Your task to perform on an android device: Open settings on Google Maps Image 0: 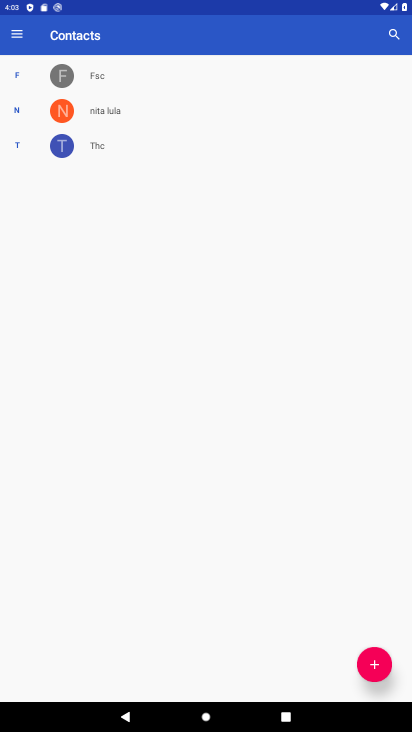
Step 0: press home button
Your task to perform on an android device: Open settings on Google Maps Image 1: 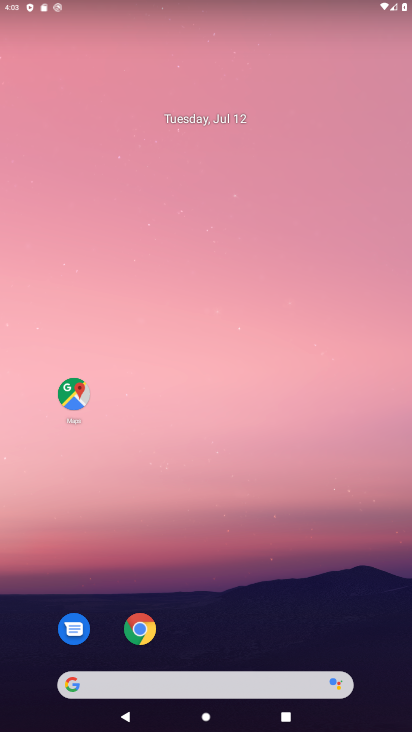
Step 1: drag from (260, 639) to (204, 63)
Your task to perform on an android device: Open settings on Google Maps Image 2: 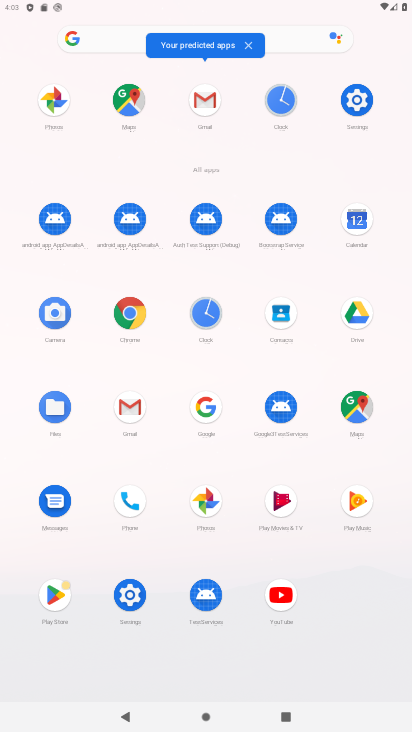
Step 2: click (126, 112)
Your task to perform on an android device: Open settings on Google Maps Image 3: 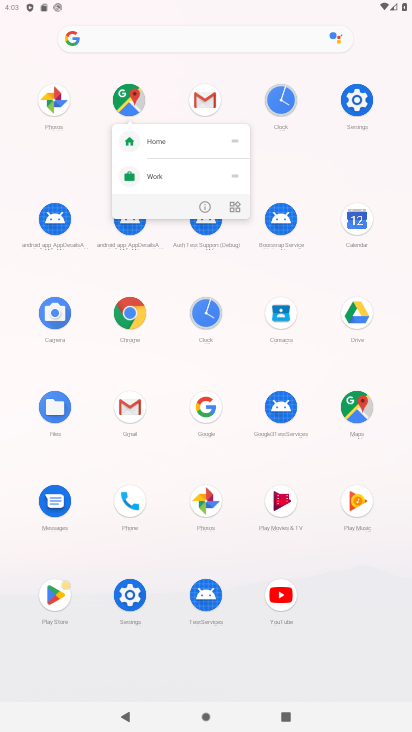
Step 3: click (126, 112)
Your task to perform on an android device: Open settings on Google Maps Image 4: 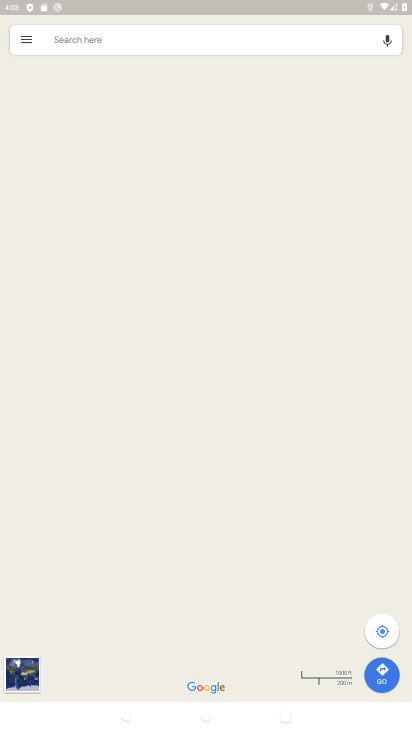
Step 4: click (24, 42)
Your task to perform on an android device: Open settings on Google Maps Image 5: 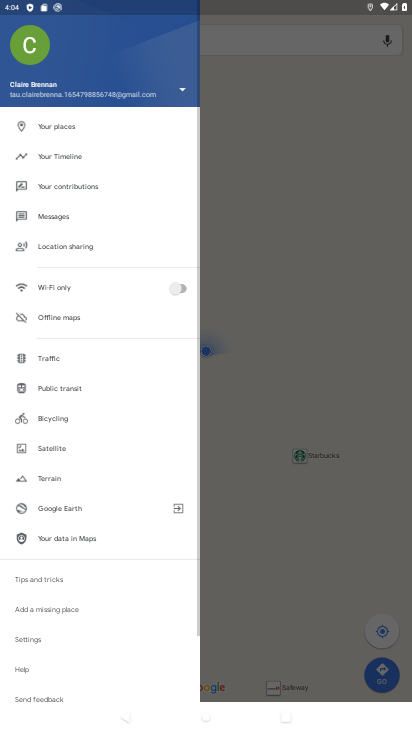
Step 5: click (29, 639)
Your task to perform on an android device: Open settings on Google Maps Image 6: 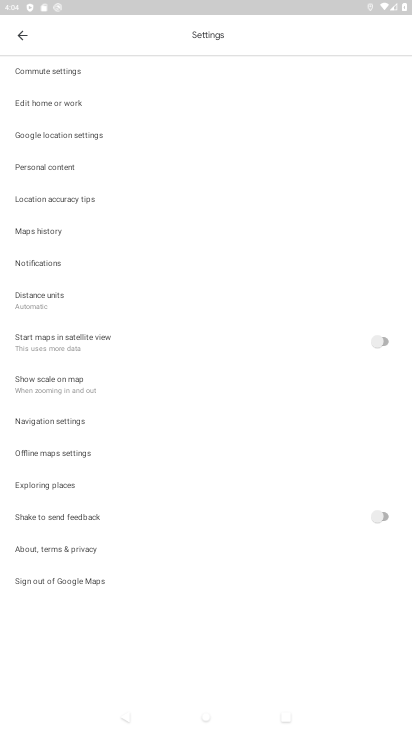
Step 6: task complete